Your task to perform on an android device: change the clock display to analog Image 0: 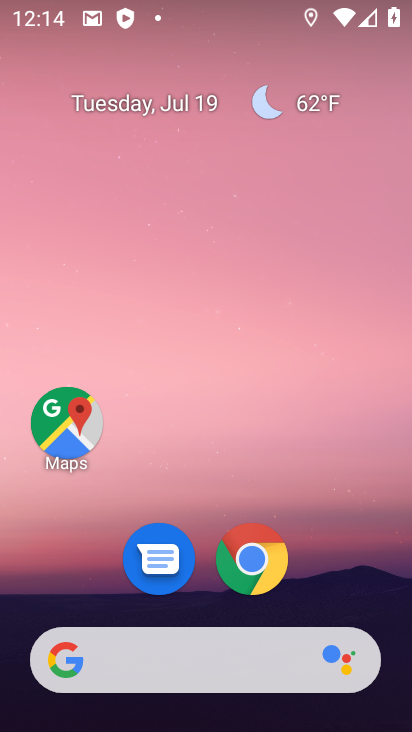
Step 0: drag from (203, 620) to (210, 105)
Your task to perform on an android device: change the clock display to analog Image 1: 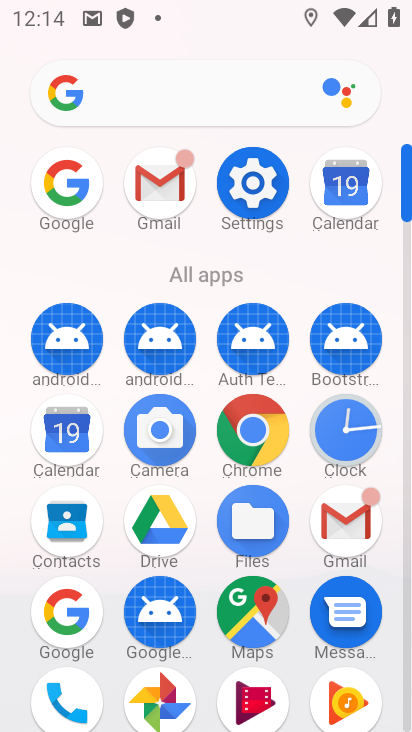
Step 1: drag from (239, 546) to (268, 179)
Your task to perform on an android device: change the clock display to analog Image 2: 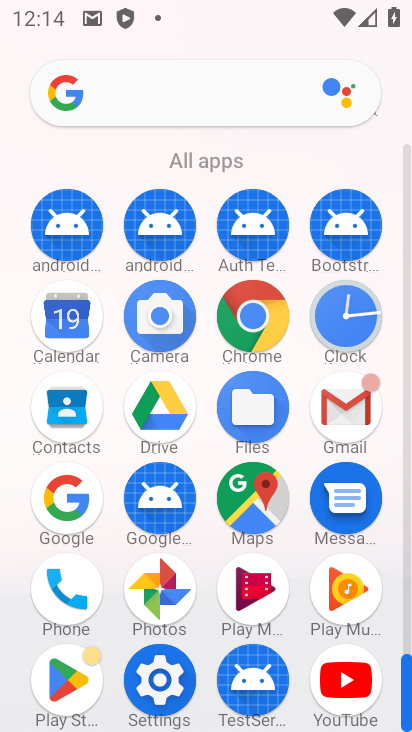
Step 2: drag from (201, 572) to (245, 278)
Your task to perform on an android device: change the clock display to analog Image 3: 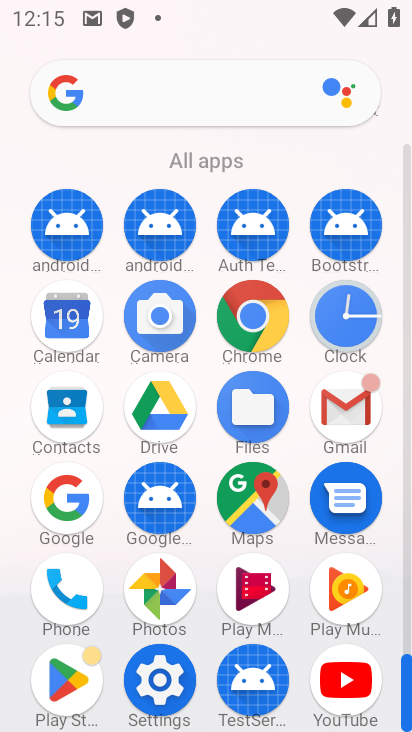
Step 3: click (340, 356)
Your task to perform on an android device: change the clock display to analog Image 4: 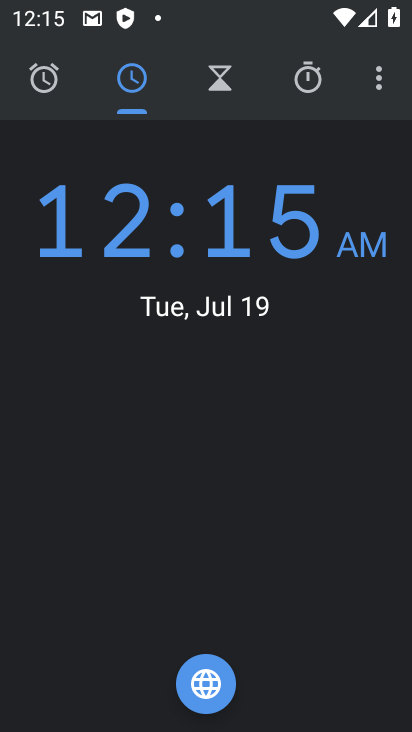
Step 4: click (382, 86)
Your task to perform on an android device: change the clock display to analog Image 5: 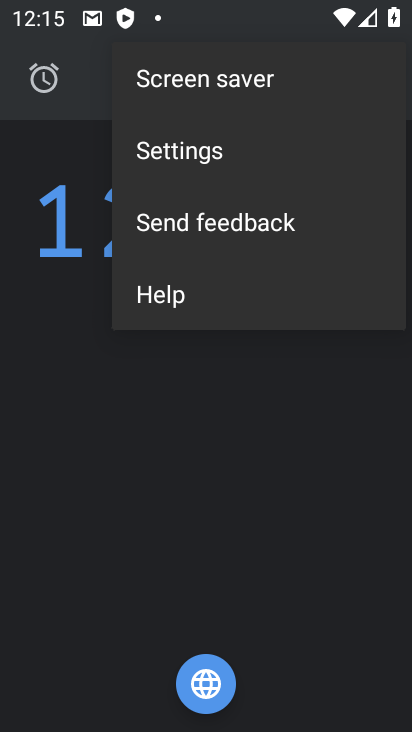
Step 5: click (199, 162)
Your task to perform on an android device: change the clock display to analog Image 6: 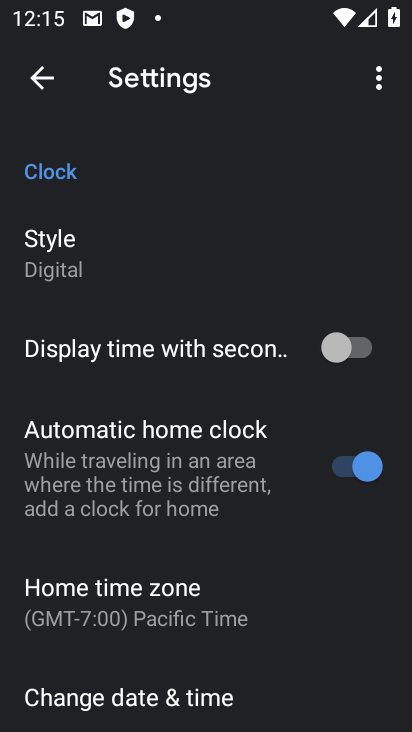
Step 6: click (115, 257)
Your task to perform on an android device: change the clock display to analog Image 7: 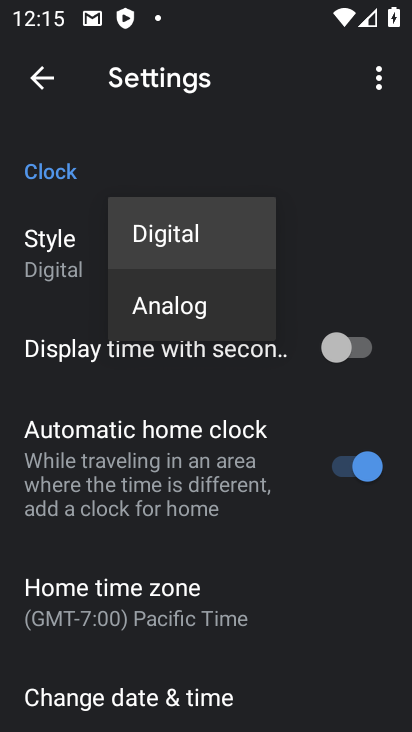
Step 7: click (175, 307)
Your task to perform on an android device: change the clock display to analog Image 8: 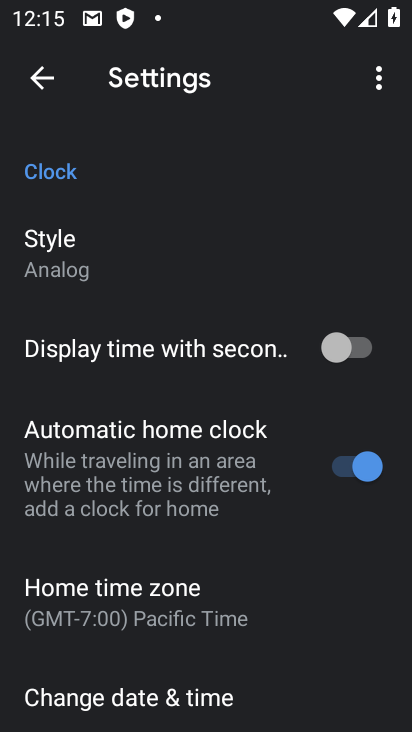
Step 8: task complete